Your task to perform on an android device: Do I have any events tomorrow? Image 0: 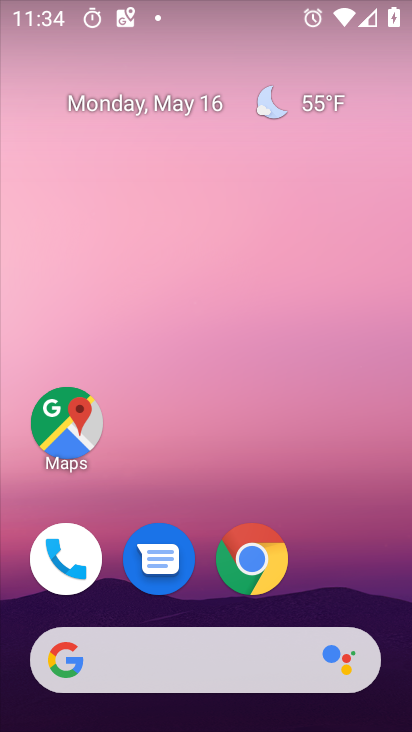
Step 0: drag from (343, 513) to (311, 56)
Your task to perform on an android device: Do I have any events tomorrow? Image 1: 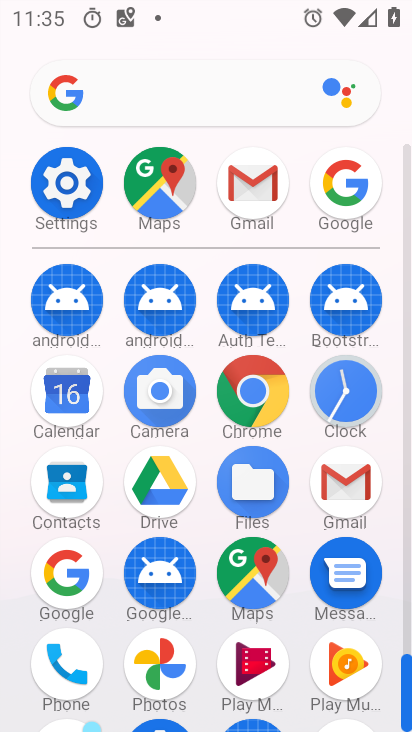
Step 1: click (73, 384)
Your task to perform on an android device: Do I have any events tomorrow? Image 2: 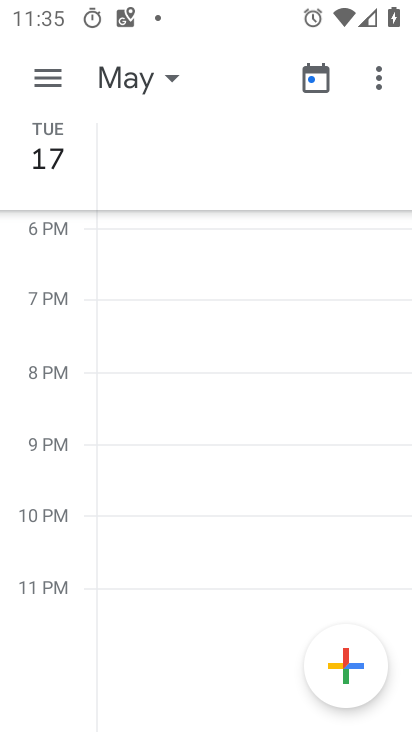
Step 2: task complete